Your task to perform on an android device: Go to Yahoo.com Image 0: 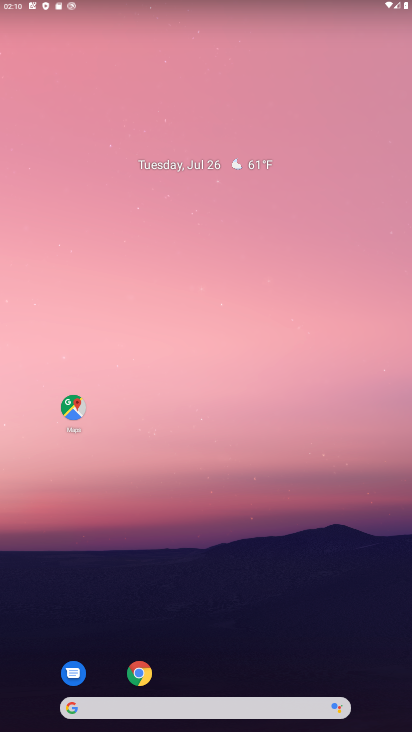
Step 0: click (138, 676)
Your task to perform on an android device: Go to Yahoo.com Image 1: 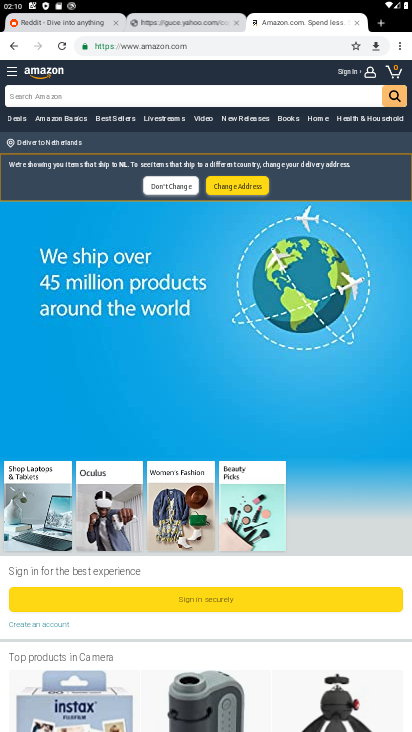
Step 1: click (402, 46)
Your task to perform on an android device: Go to Yahoo.com Image 2: 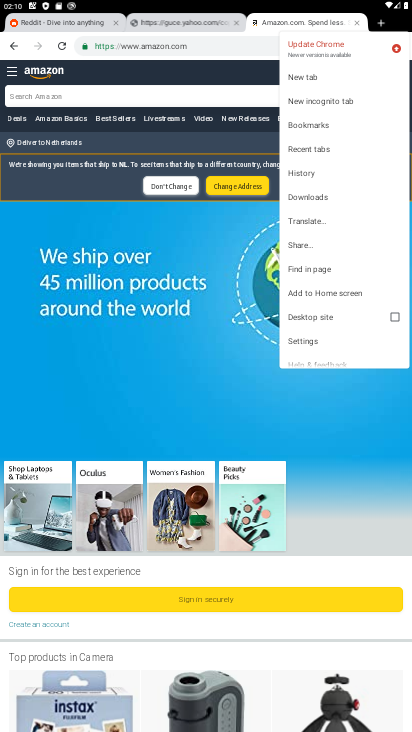
Step 2: click (307, 73)
Your task to perform on an android device: Go to Yahoo.com Image 3: 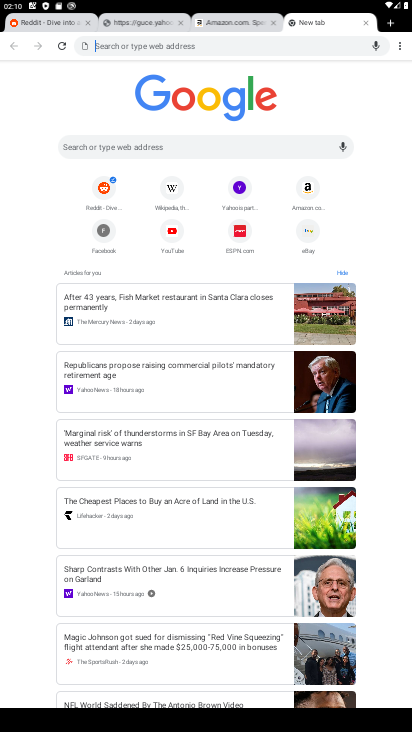
Step 3: click (240, 188)
Your task to perform on an android device: Go to Yahoo.com Image 4: 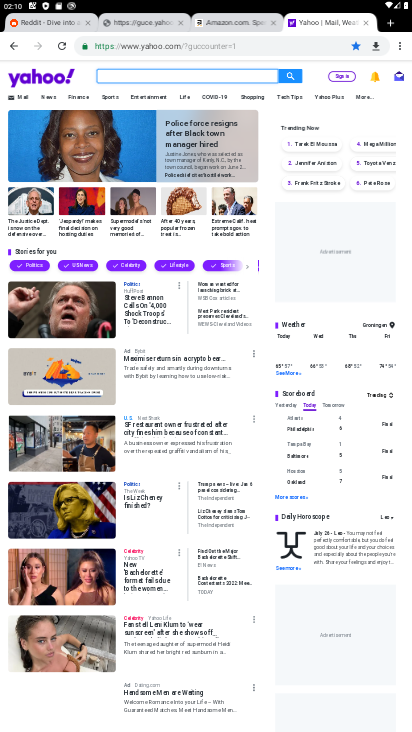
Step 4: task complete